Your task to perform on an android device: all mails in gmail Image 0: 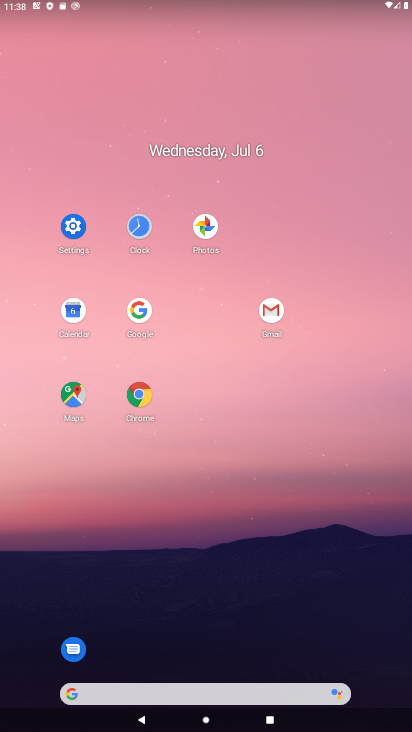
Step 0: click (278, 306)
Your task to perform on an android device: all mails in gmail Image 1: 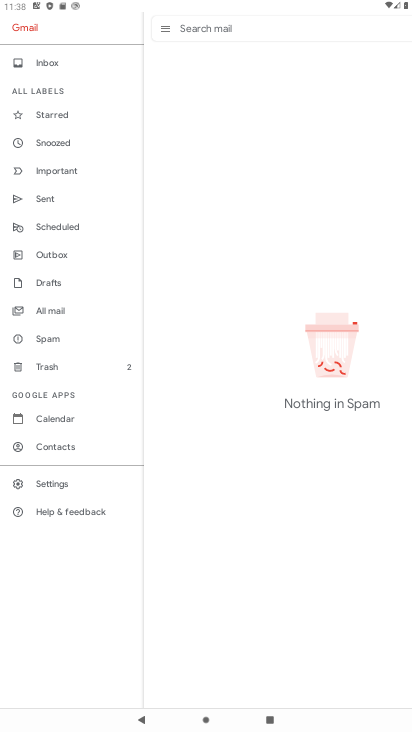
Step 1: click (61, 312)
Your task to perform on an android device: all mails in gmail Image 2: 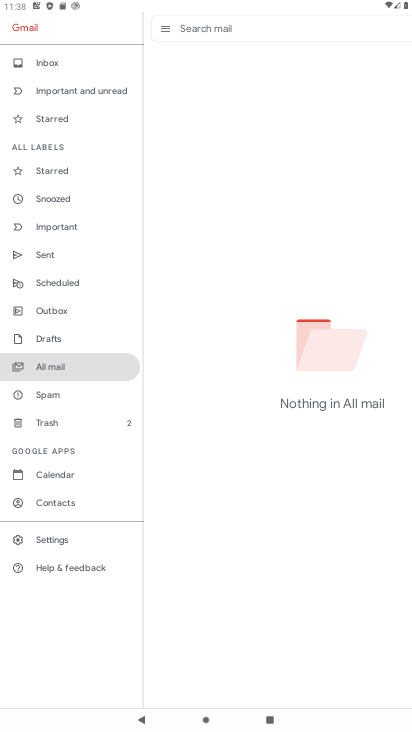
Step 2: click (89, 359)
Your task to perform on an android device: all mails in gmail Image 3: 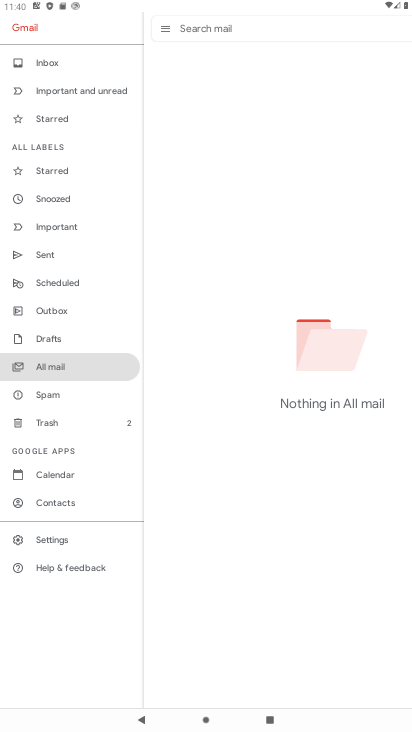
Step 3: task complete